Your task to perform on an android device: Find coffee shops on Maps Image 0: 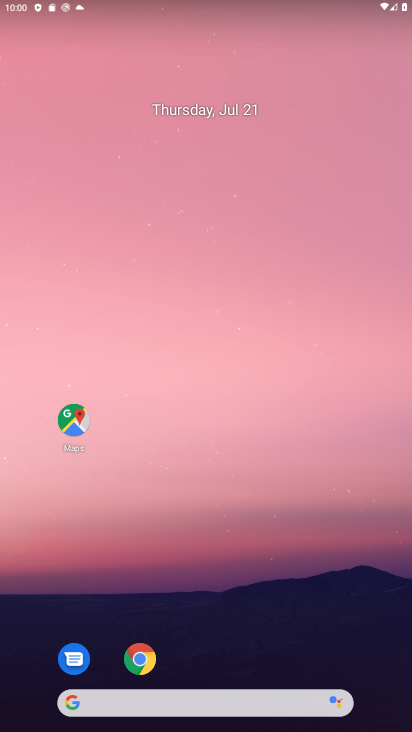
Step 0: task complete